Your task to perform on an android device: Go to CNN.com Image 0: 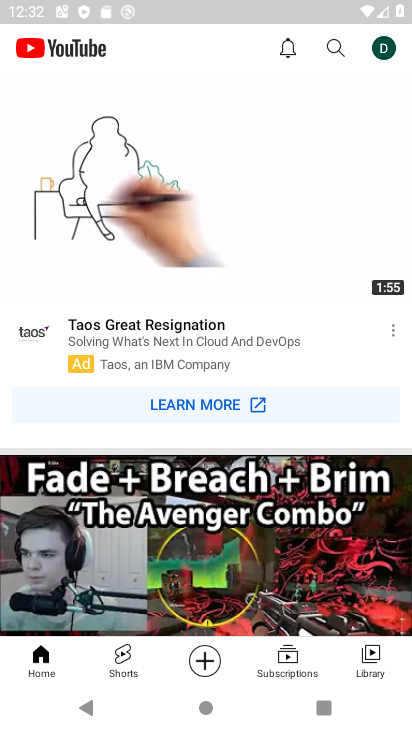
Step 0: press home button
Your task to perform on an android device: Go to CNN.com Image 1: 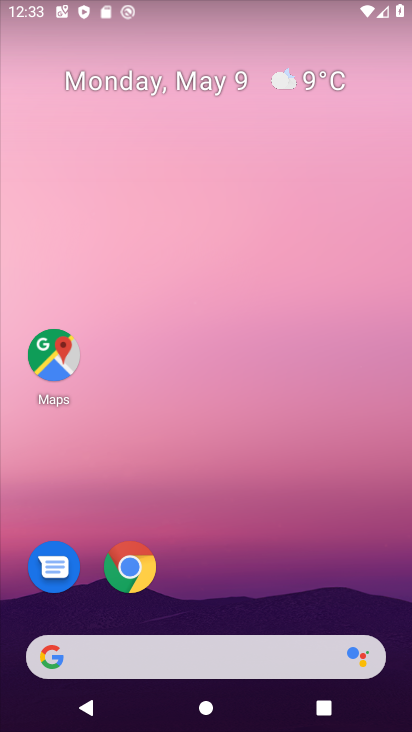
Step 1: drag from (252, 684) to (252, 226)
Your task to perform on an android device: Go to CNN.com Image 2: 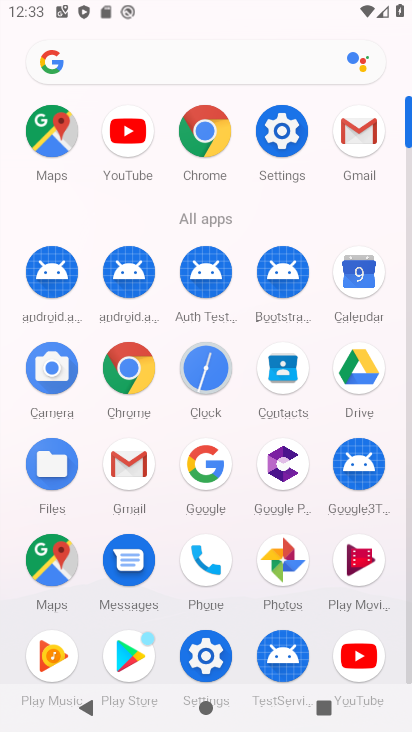
Step 2: click (201, 145)
Your task to perform on an android device: Go to CNN.com Image 3: 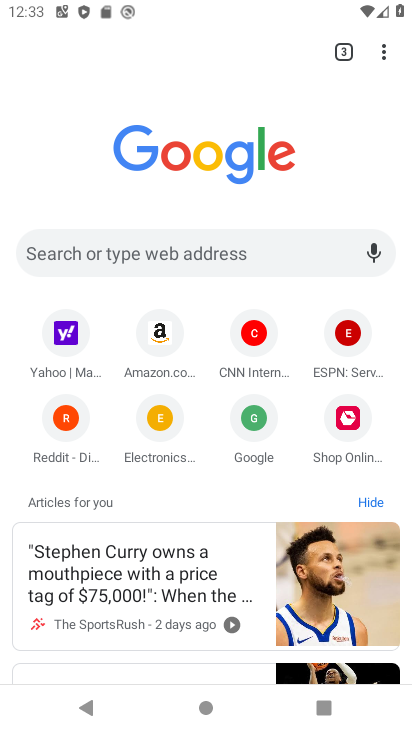
Step 3: click (257, 344)
Your task to perform on an android device: Go to CNN.com Image 4: 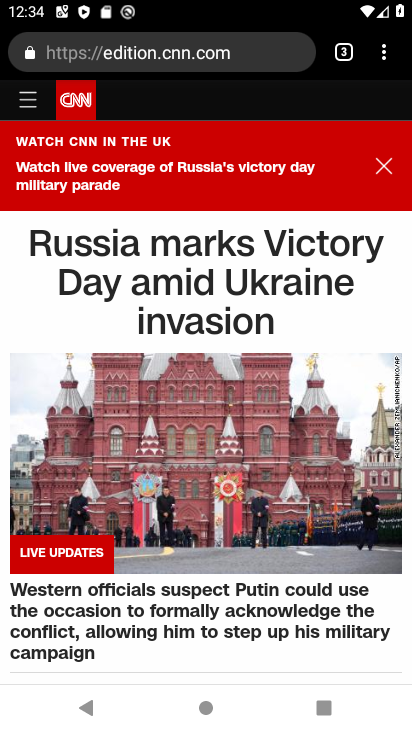
Step 4: task complete